Your task to perform on an android device: Open Android settings Image 0: 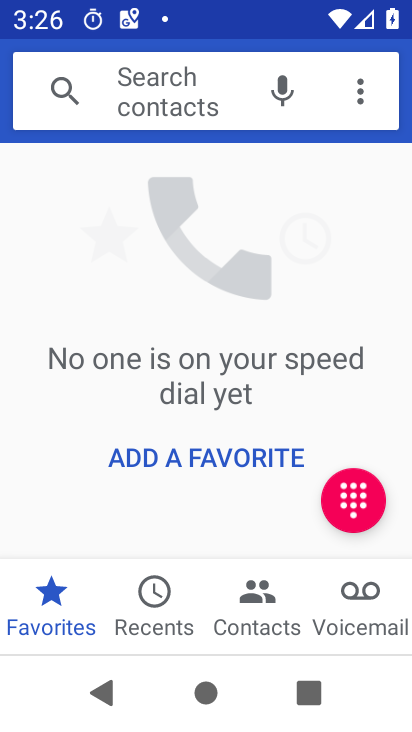
Step 0: press home button
Your task to perform on an android device: Open Android settings Image 1: 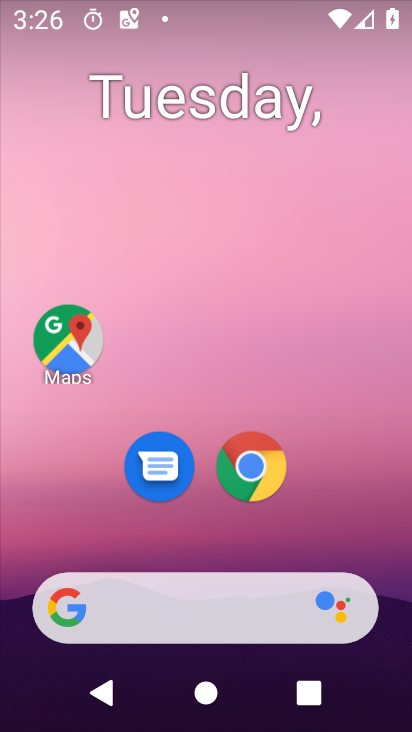
Step 1: drag from (337, 521) to (336, 98)
Your task to perform on an android device: Open Android settings Image 2: 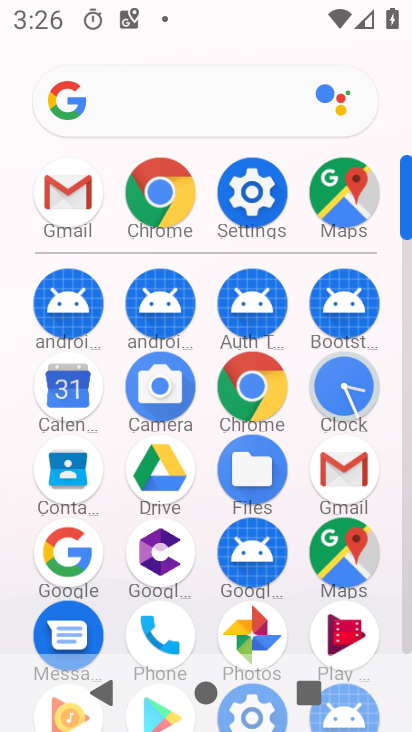
Step 2: click (262, 198)
Your task to perform on an android device: Open Android settings Image 3: 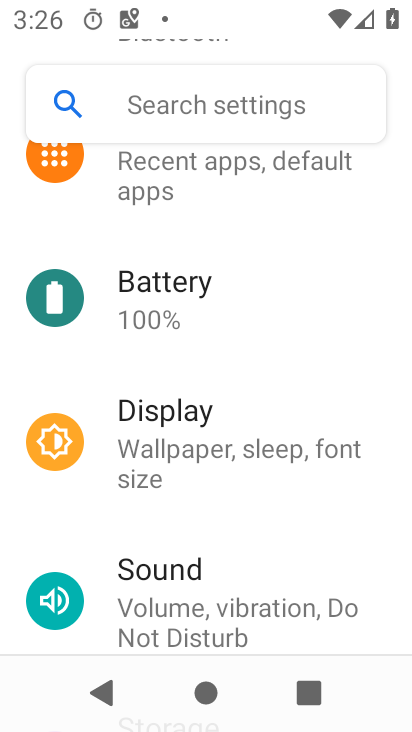
Step 3: drag from (356, 225) to (365, 354)
Your task to perform on an android device: Open Android settings Image 4: 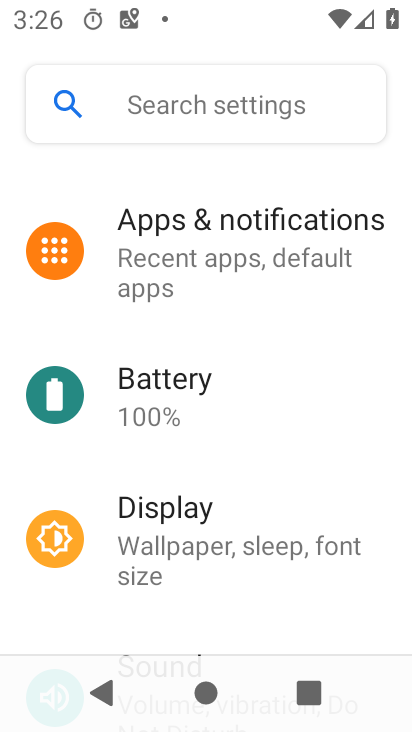
Step 4: drag from (376, 180) to (363, 364)
Your task to perform on an android device: Open Android settings Image 5: 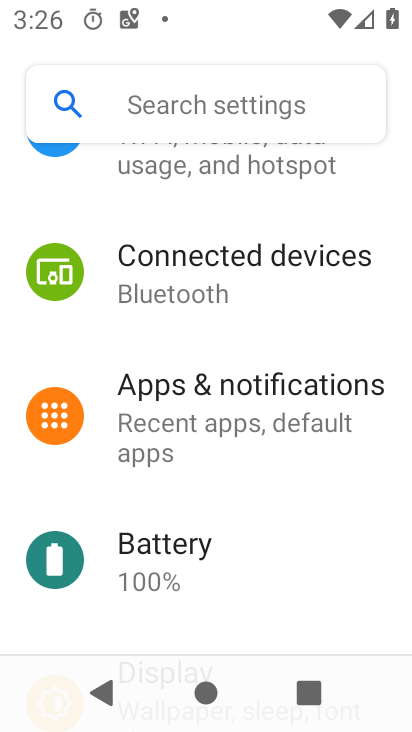
Step 5: drag from (376, 182) to (353, 380)
Your task to perform on an android device: Open Android settings Image 6: 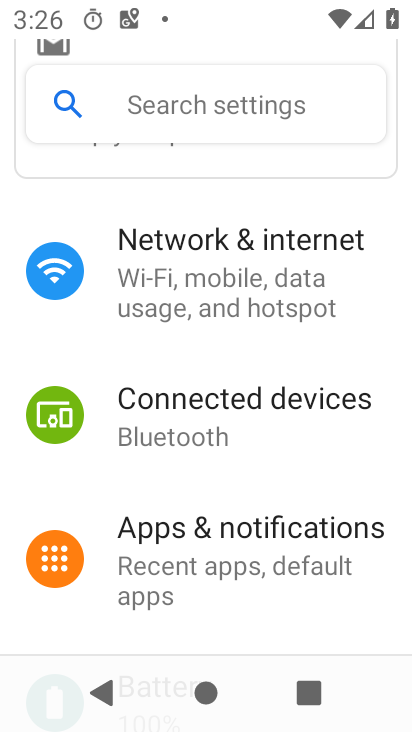
Step 6: drag from (311, 482) to (313, 248)
Your task to perform on an android device: Open Android settings Image 7: 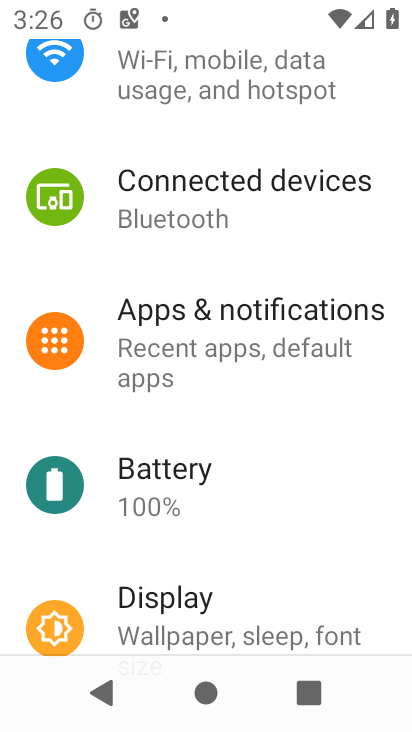
Step 7: drag from (343, 468) to (354, 301)
Your task to perform on an android device: Open Android settings Image 8: 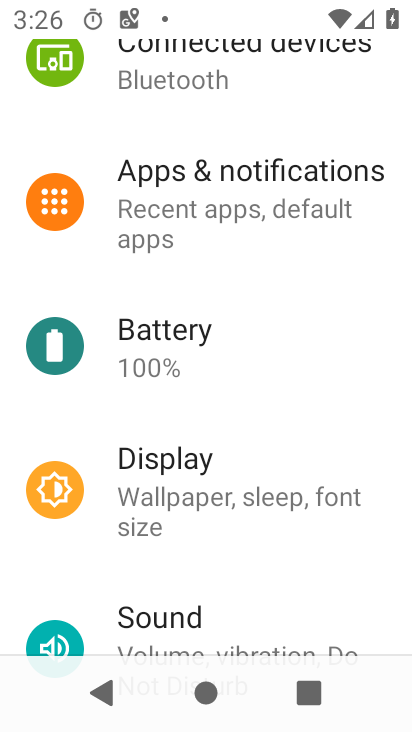
Step 8: drag from (353, 567) to (342, 341)
Your task to perform on an android device: Open Android settings Image 9: 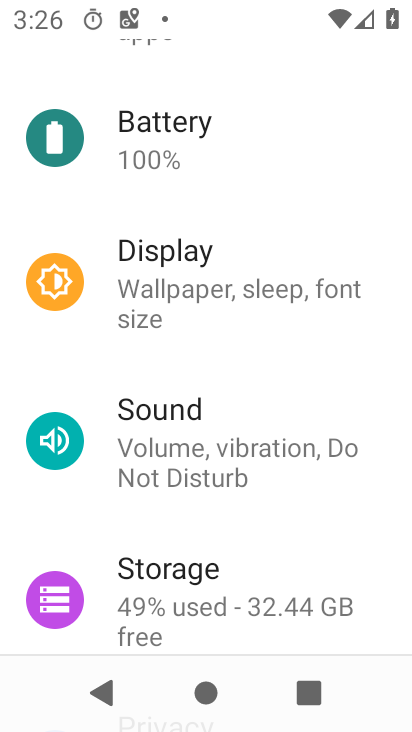
Step 9: drag from (342, 574) to (343, 353)
Your task to perform on an android device: Open Android settings Image 10: 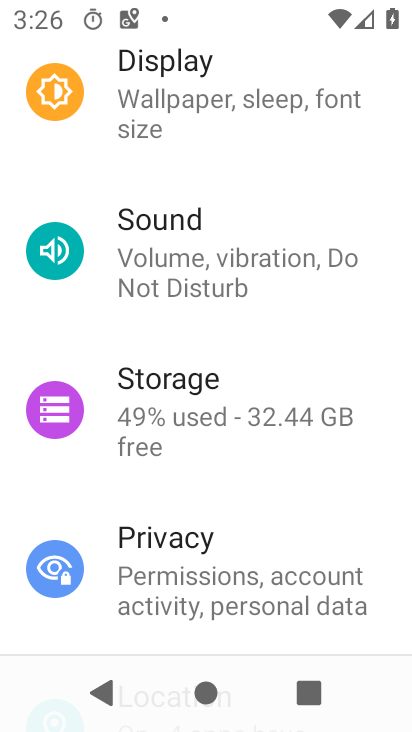
Step 10: drag from (322, 514) to (319, 334)
Your task to perform on an android device: Open Android settings Image 11: 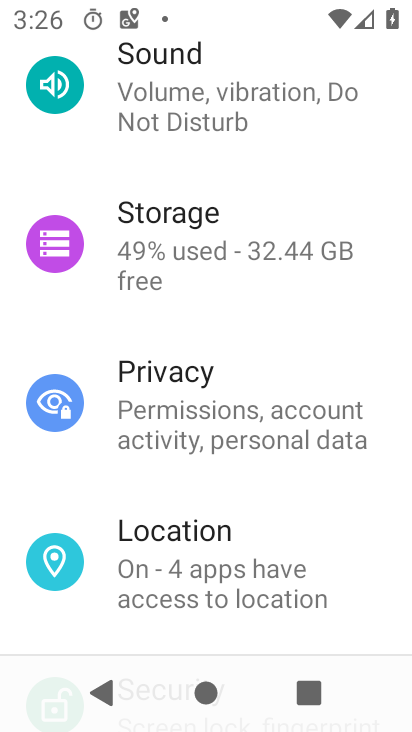
Step 11: drag from (340, 529) to (338, 319)
Your task to perform on an android device: Open Android settings Image 12: 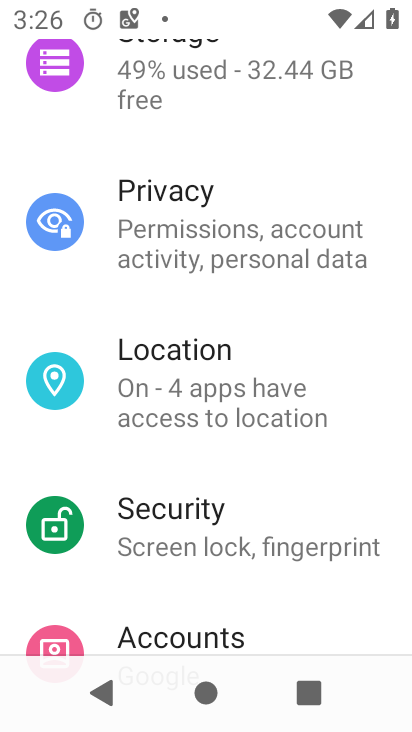
Step 12: drag from (349, 480) to (350, 286)
Your task to perform on an android device: Open Android settings Image 13: 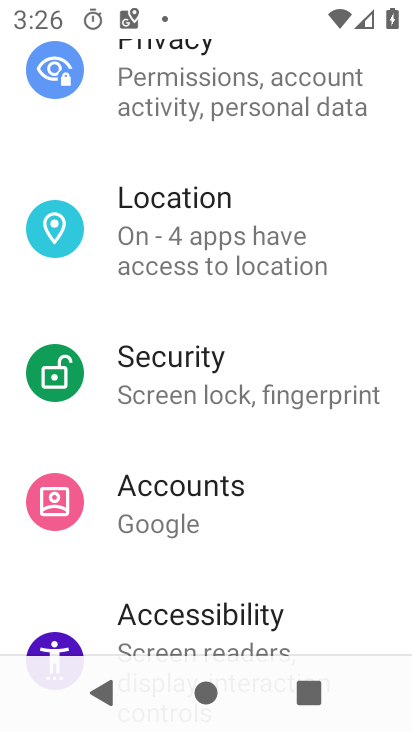
Step 13: drag from (330, 498) to (345, 359)
Your task to perform on an android device: Open Android settings Image 14: 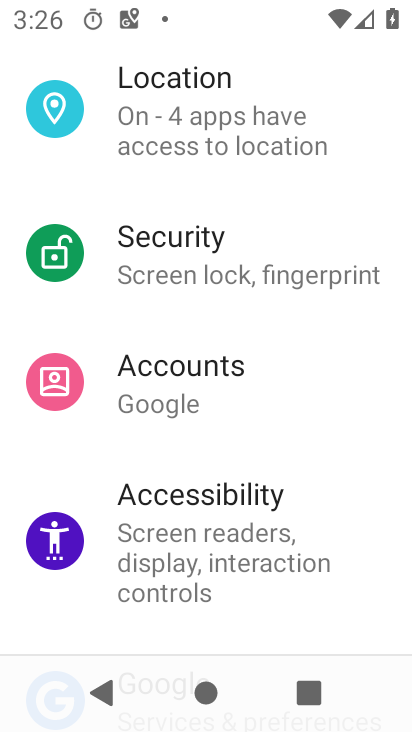
Step 14: drag from (334, 599) to (348, 386)
Your task to perform on an android device: Open Android settings Image 15: 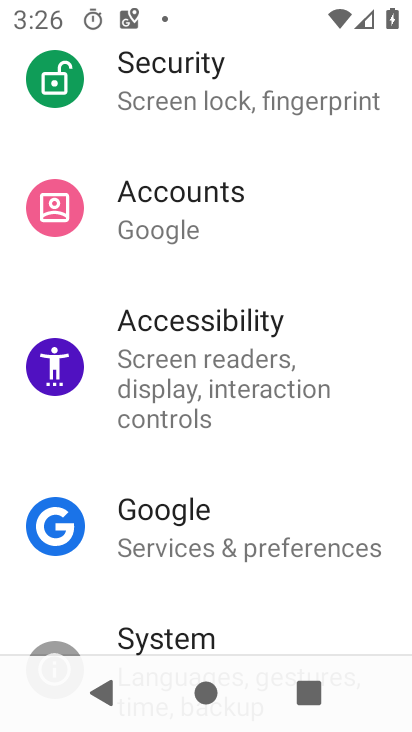
Step 15: drag from (309, 588) to (339, 364)
Your task to perform on an android device: Open Android settings Image 16: 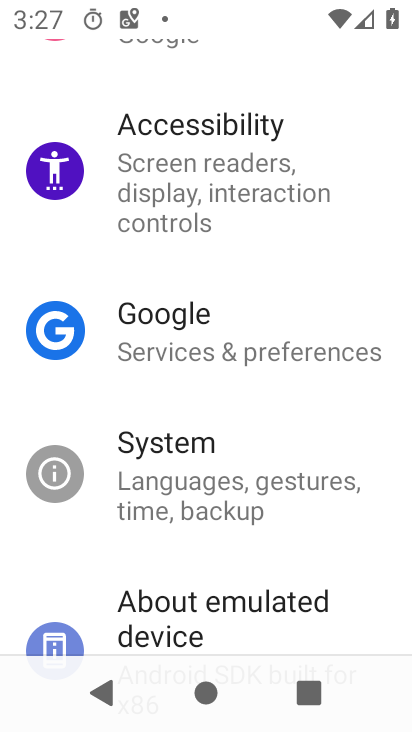
Step 16: drag from (336, 539) to (341, 361)
Your task to perform on an android device: Open Android settings Image 17: 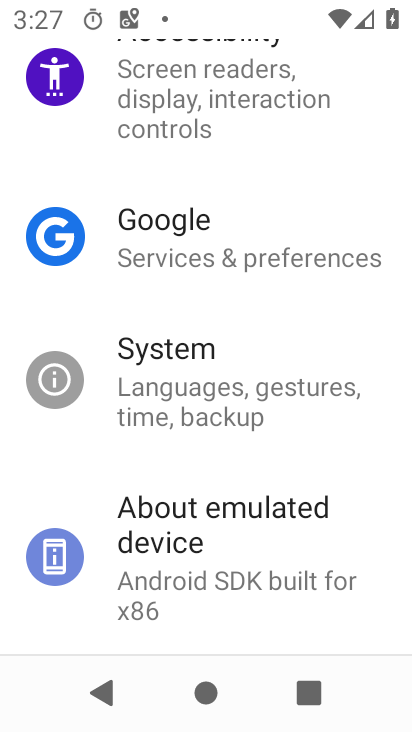
Step 17: click (272, 374)
Your task to perform on an android device: Open Android settings Image 18: 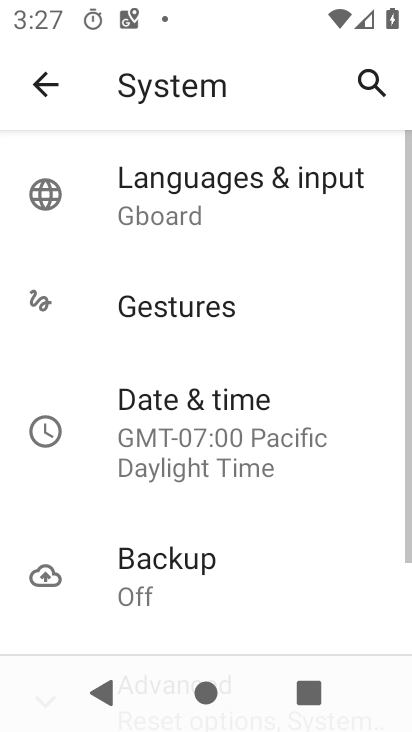
Step 18: drag from (286, 570) to (303, 359)
Your task to perform on an android device: Open Android settings Image 19: 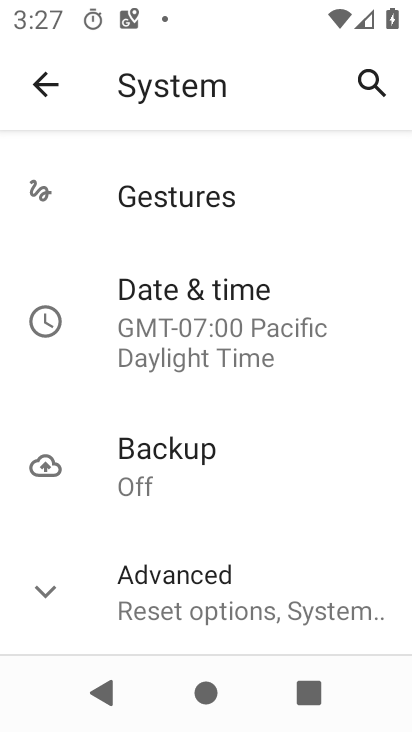
Step 19: click (228, 600)
Your task to perform on an android device: Open Android settings Image 20: 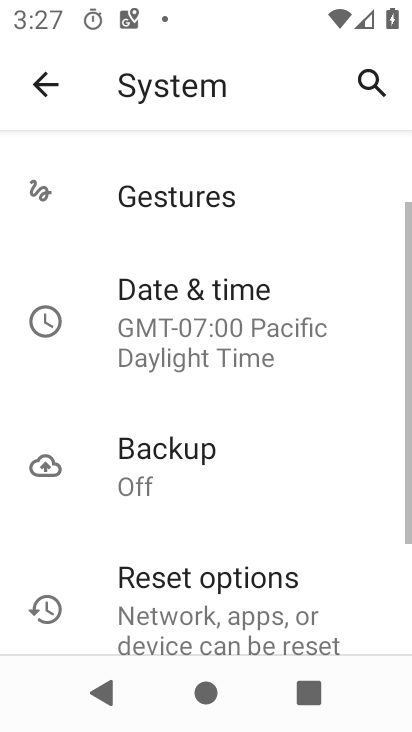
Step 20: task complete